Your task to perform on an android device: What's on my calendar today? Image 0: 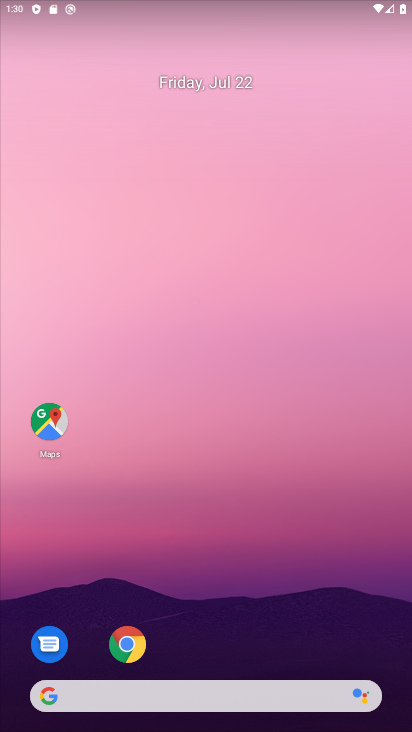
Step 0: drag from (236, 699) to (244, 273)
Your task to perform on an android device: What's on my calendar today? Image 1: 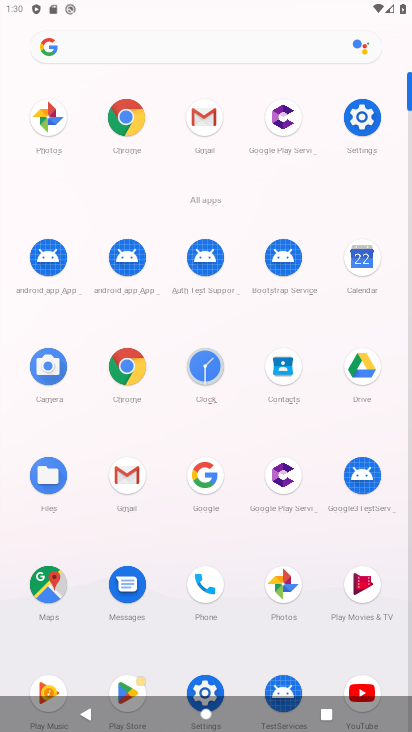
Step 1: click (357, 254)
Your task to perform on an android device: What's on my calendar today? Image 2: 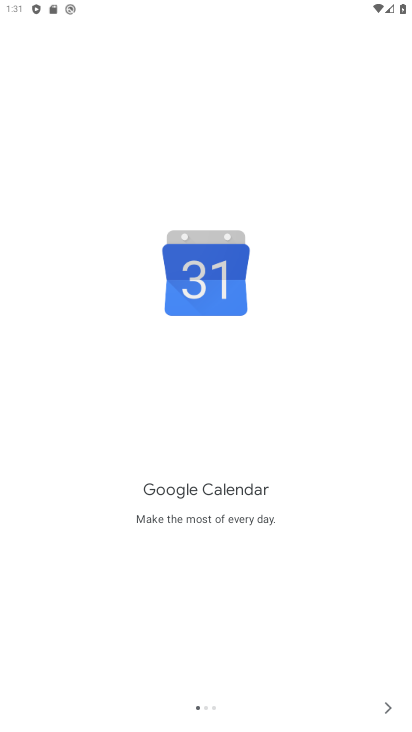
Step 2: click (393, 709)
Your task to perform on an android device: What's on my calendar today? Image 3: 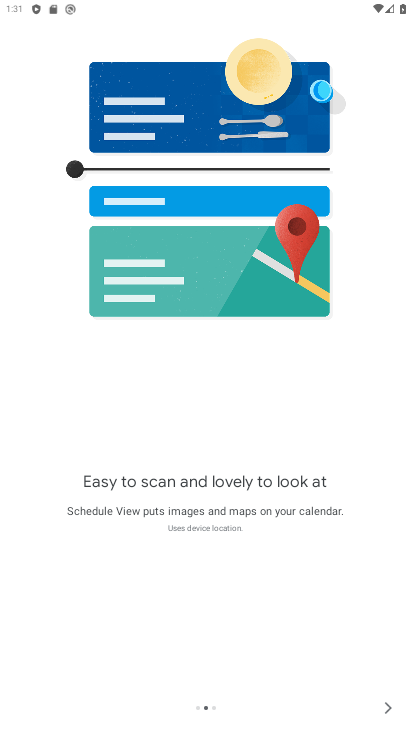
Step 3: click (393, 709)
Your task to perform on an android device: What's on my calendar today? Image 4: 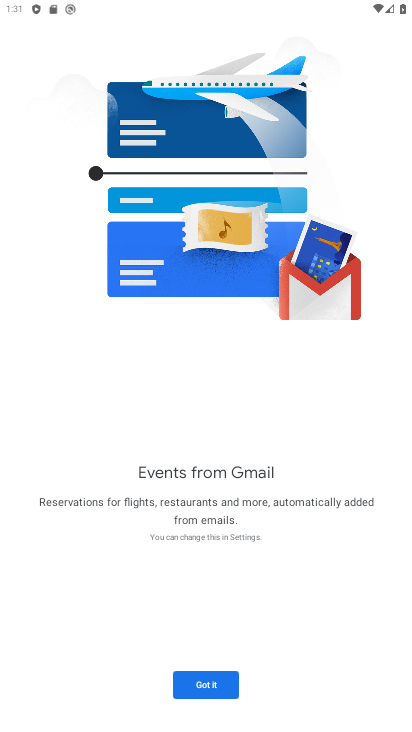
Step 4: click (213, 684)
Your task to perform on an android device: What's on my calendar today? Image 5: 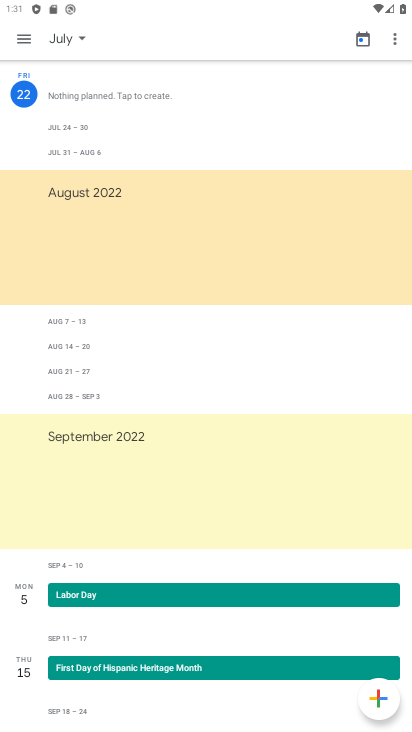
Step 5: click (24, 28)
Your task to perform on an android device: What's on my calendar today? Image 6: 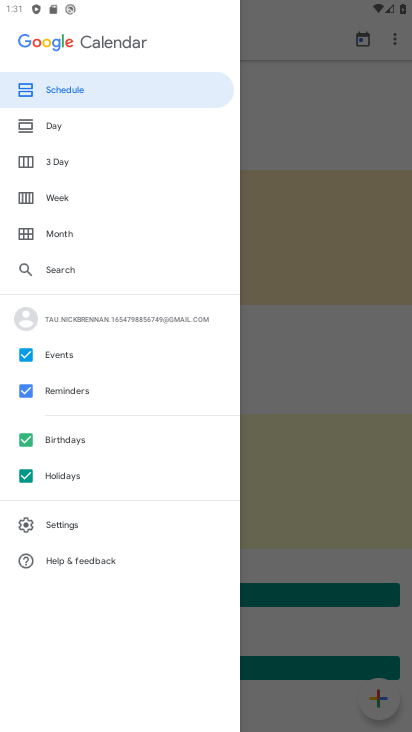
Step 6: click (71, 128)
Your task to perform on an android device: What's on my calendar today? Image 7: 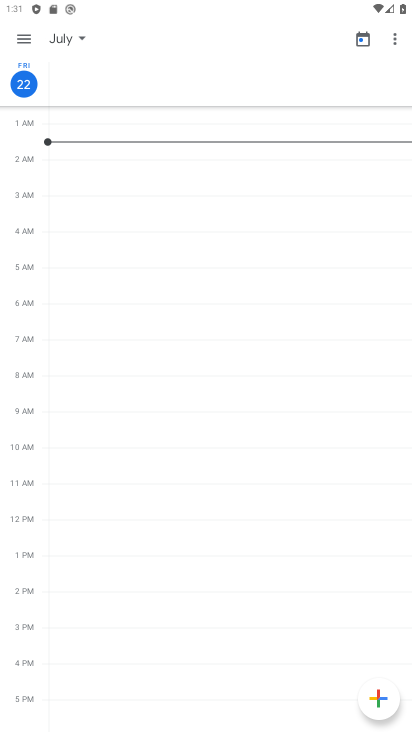
Step 7: task complete